Your task to perform on an android device: check android version Image 0: 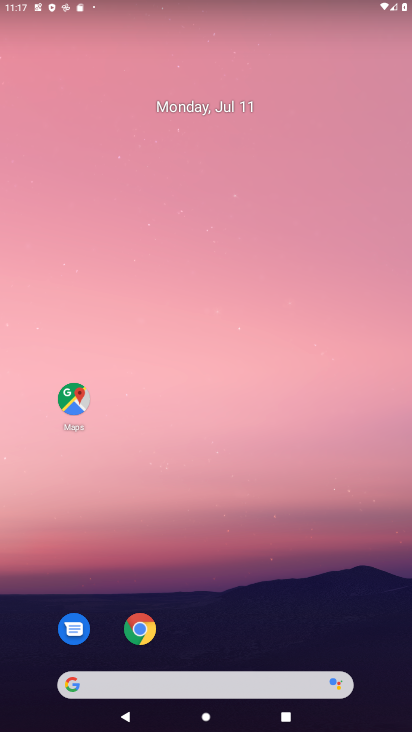
Step 0: drag from (265, 653) to (226, 80)
Your task to perform on an android device: check android version Image 1: 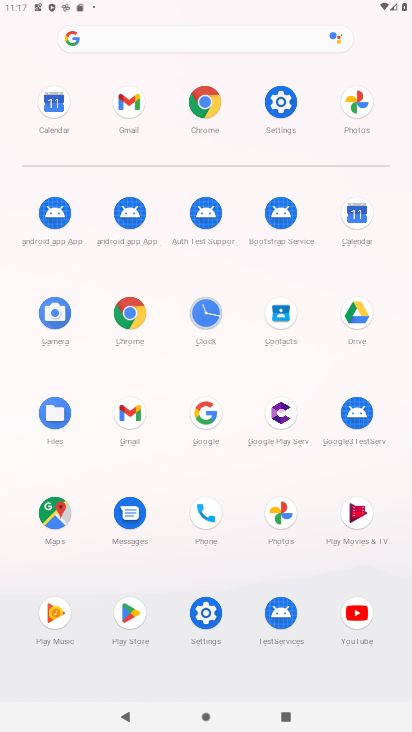
Step 1: click (276, 120)
Your task to perform on an android device: check android version Image 2: 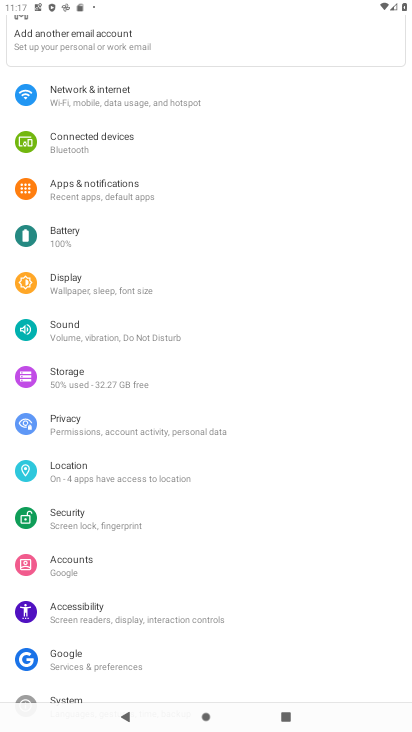
Step 2: drag from (181, 646) to (167, 152)
Your task to perform on an android device: check android version Image 3: 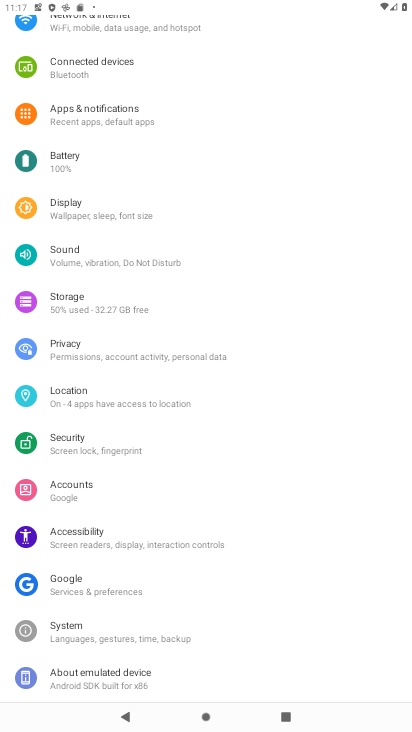
Step 3: drag from (110, 675) to (125, 522)
Your task to perform on an android device: check android version Image 4: 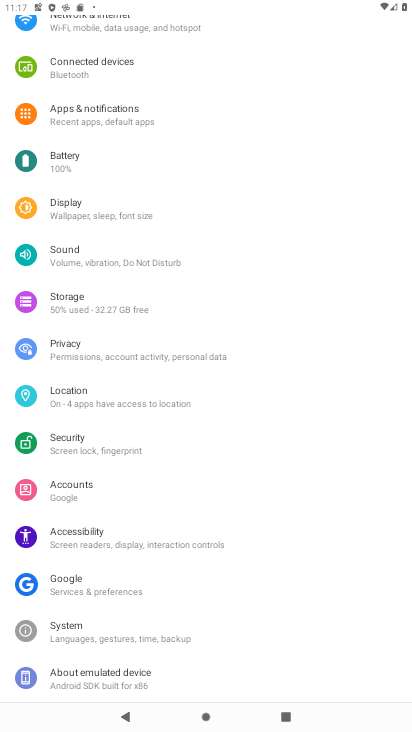
Step 4: click (93, 684)
Your task to perform on an android device: check android version Image 5: 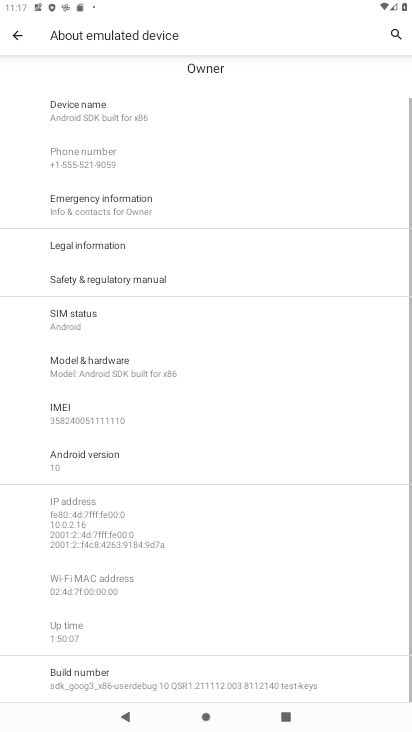
Step 5: task complete